Your task to perform on an android device: check data usage Image 0: 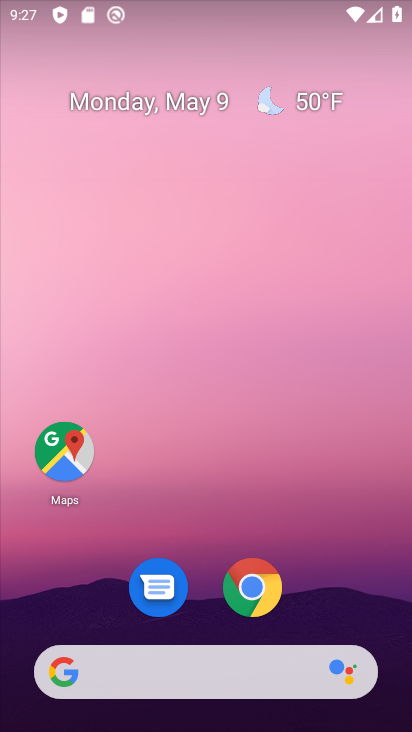
Step 0: drag from (209, 723) to (207, 204)
Your task to perform on an android device: check data usage Image 1: 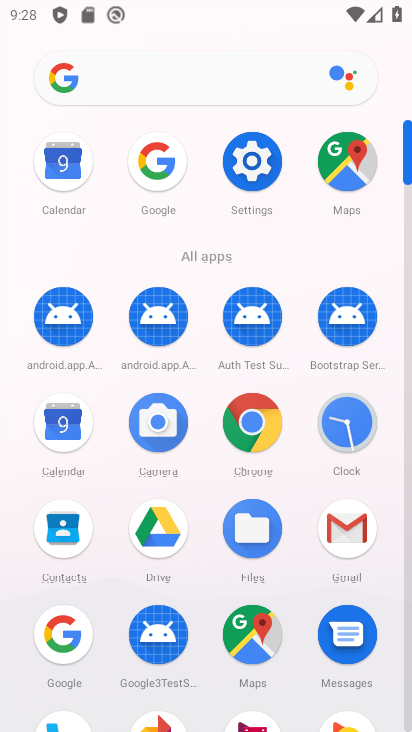
Step 1: click (258, 161)
Your task to perform on an android device: check data usage Image 2: 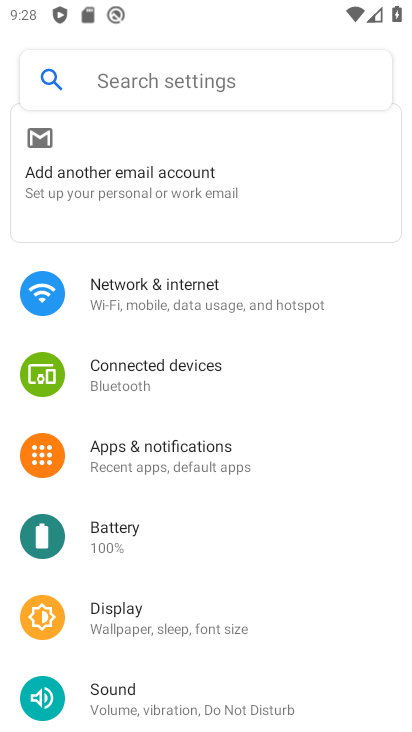
Step 2: click (161, 300)
Your task to perform on an android device: check data usage Image 3: 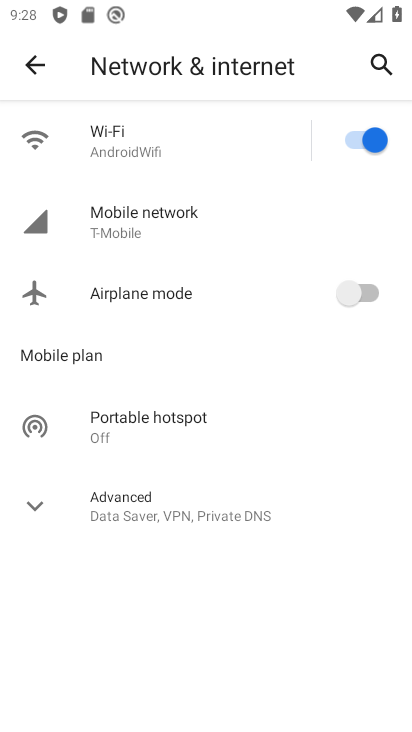
Step 3: click (161, 218)
Your task to perform on an android device: check data usage Image 4: 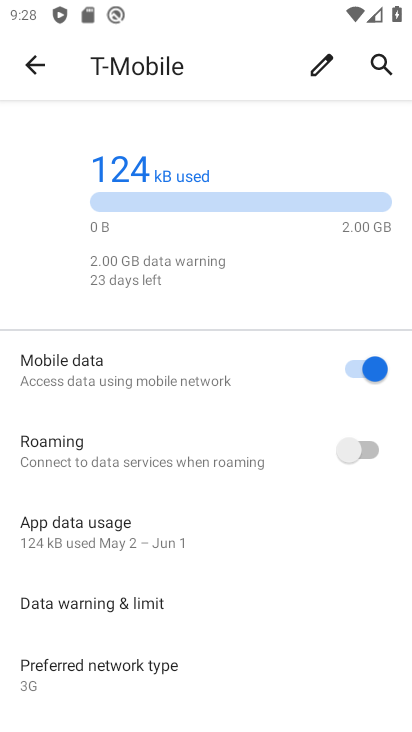
Step 4: drag from (192, 638) to (195, 470)
Your task to perform on an android device: check data usage Image 5: 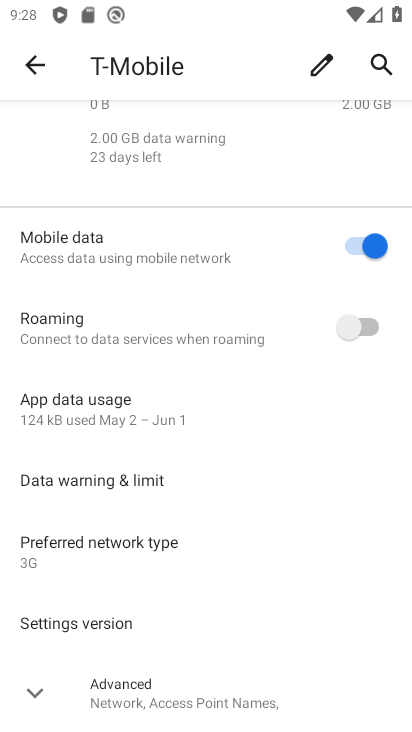
Step 5: click (82, 406)
Your task to perform on an android device: check data usage Image 6: 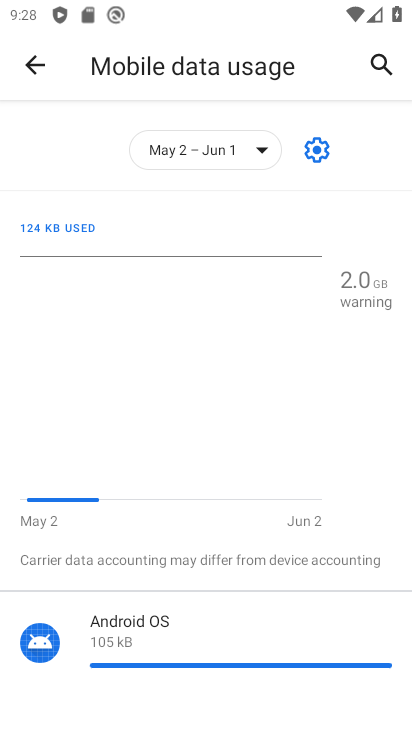
Step 6: task complete